Your task to perform on an android device: open wifi settings Image 0: 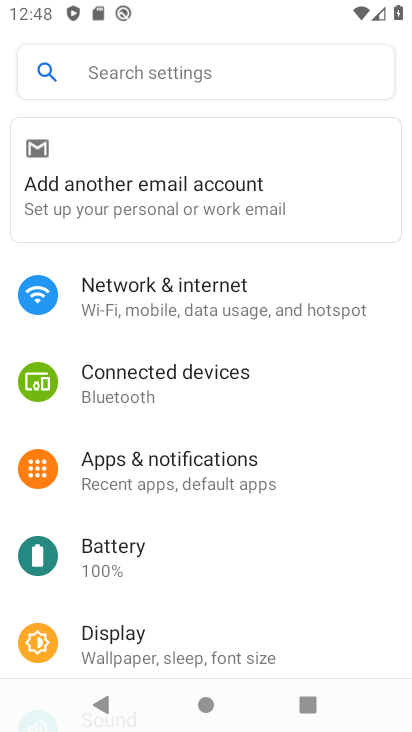
Step 0: press home button
Your task to perform on an android device: open wifi settings Image 1: 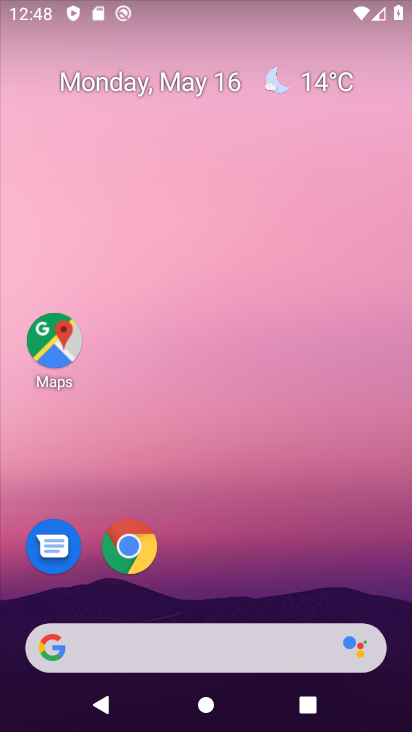
Step 1: drag from (294, 661) to (248, 218)
Your task to perform on an android device: open wifi settings Image 2: 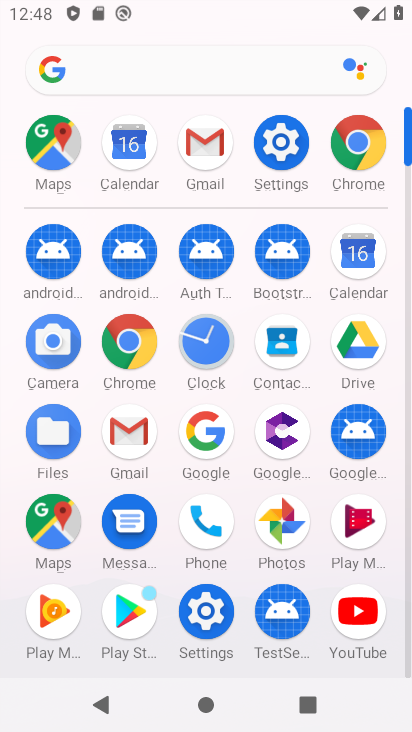
Step 2: click (223, 597)
Your task to perform on an android device: open wifi settings Image 3: 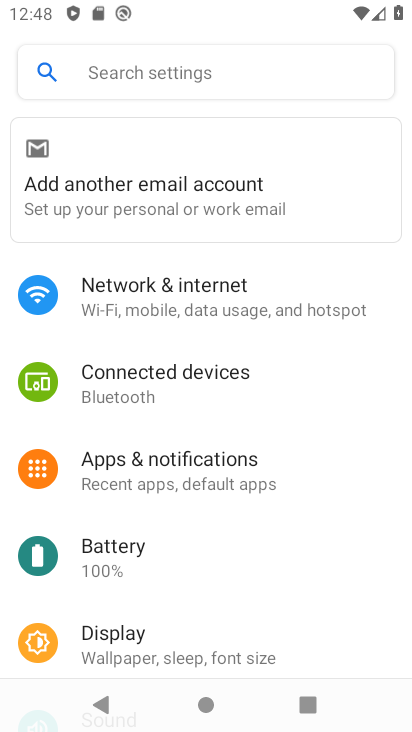
Step 3: click (201, 310)
Your task to perform on an android device: open wifi settings Image 4: 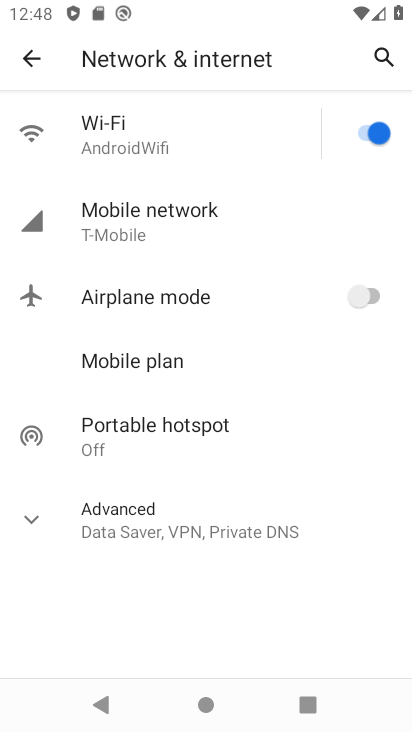
Step 4: click (112, 161)
Your task to perform on an android device: open wifi settings Image 5: 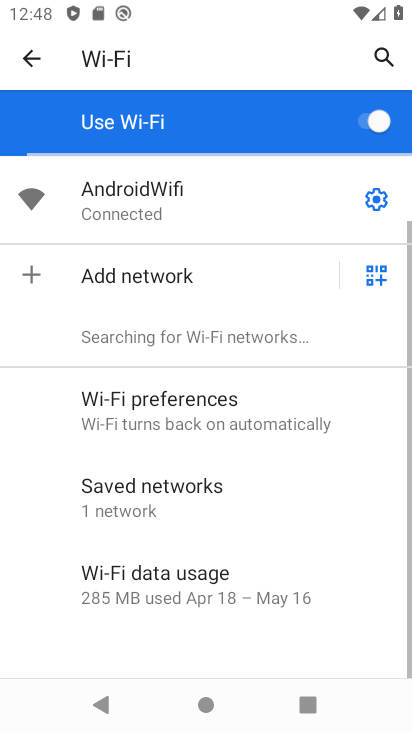
Step 5: task complete